Your task to perform on an android device: turn notification dots on Image 0: 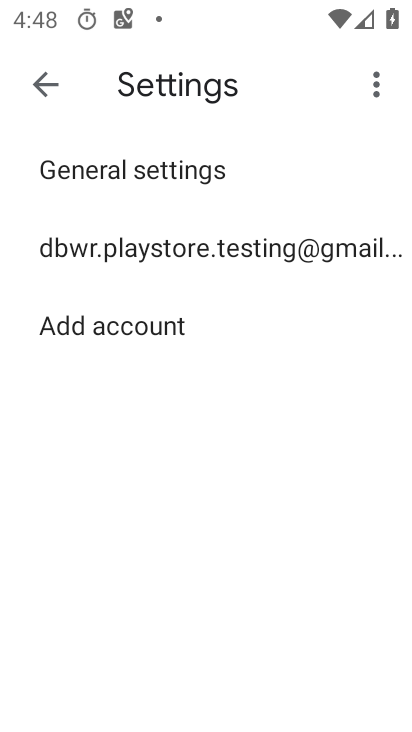
Step 0: press home button
Your task to perform on an android device: turn notification dots on Image 1: 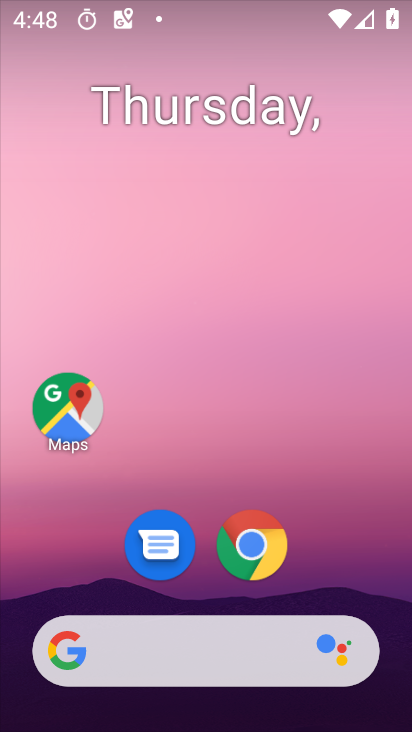
Step 1: drag from (232, 727) to (252, 0)
Your task to perform on an android device: turn notification dots on Image 2: 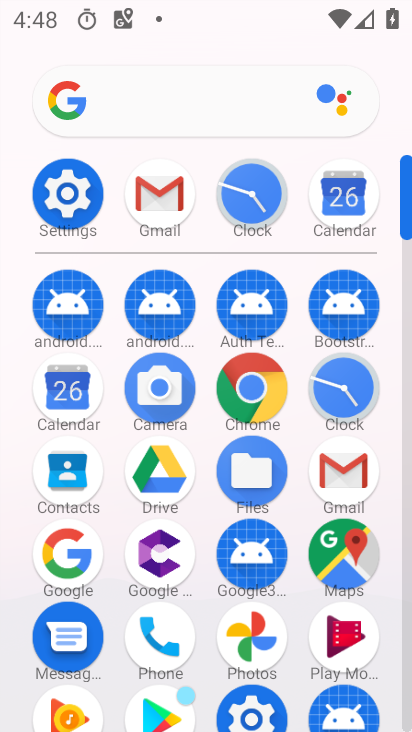
Step 2: click (73, 213)
Your task to perform on an android device: turn notification dots on Image 3: 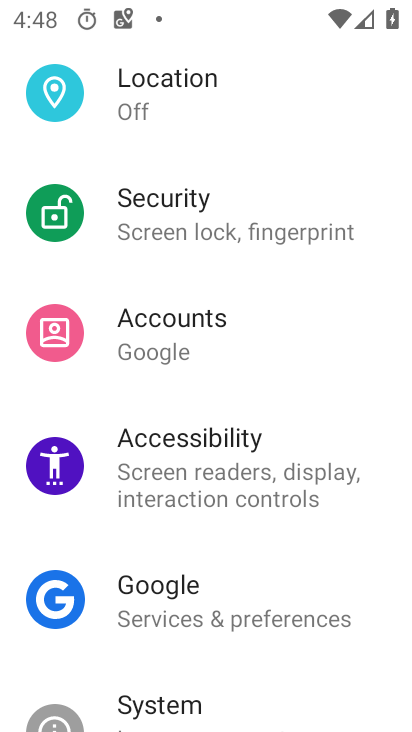
Step 3: drag from (209, 160) to (196, 628)
Your task to perform on an android device: turn notification dots on Image 4: 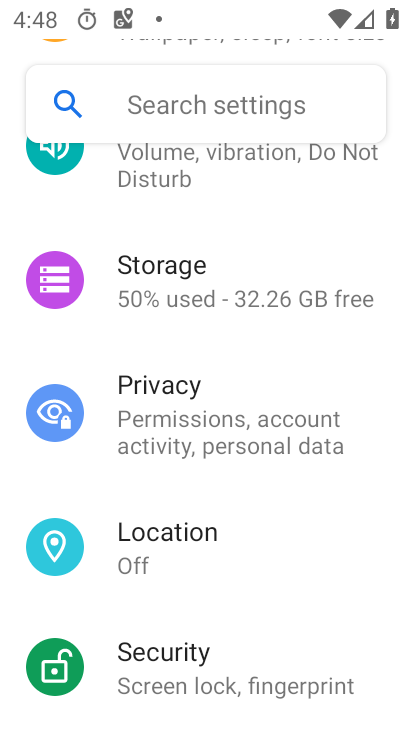
Step 4: drag from (209, 218) to (204, 637)
Your task to perform on an android device: turn notification dots on Image 5: 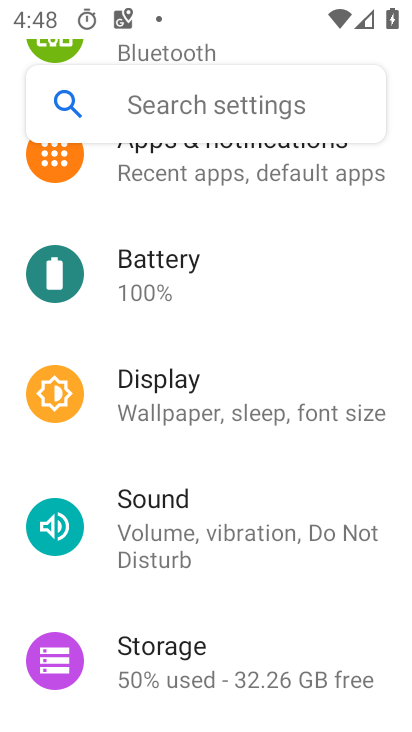
Step 5: drag from (218, 225) to (219, 617)
Your task to perform on an android device: turn notification dots on Image 6: 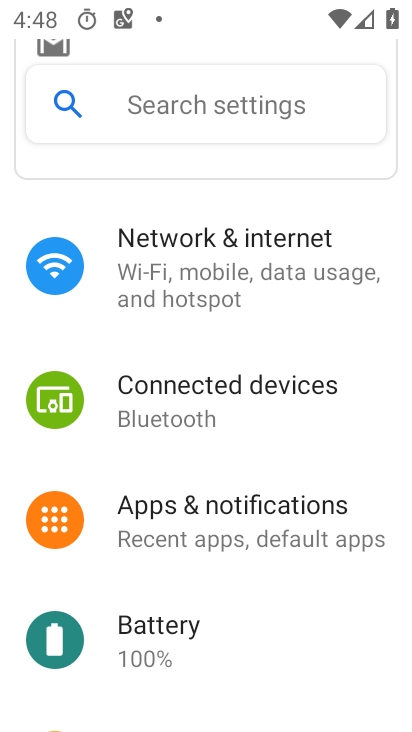
Step 6: click (207, 531)
Your task to perform on an android device: turn notification dots on Image 7: 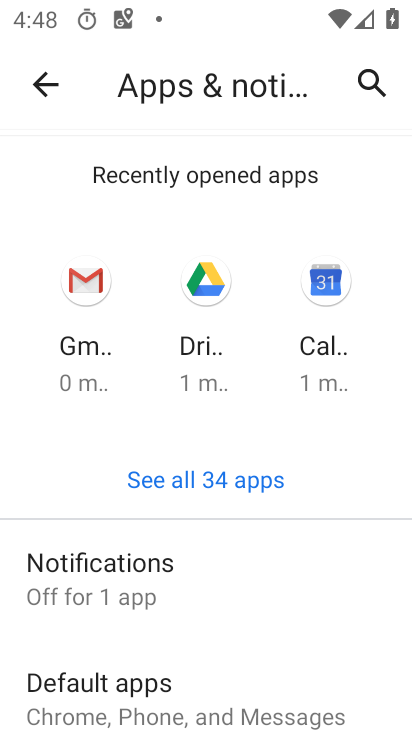
Step 7: click (124, 574)
Your task to perform on an android device: turn notification dots on Image 8: 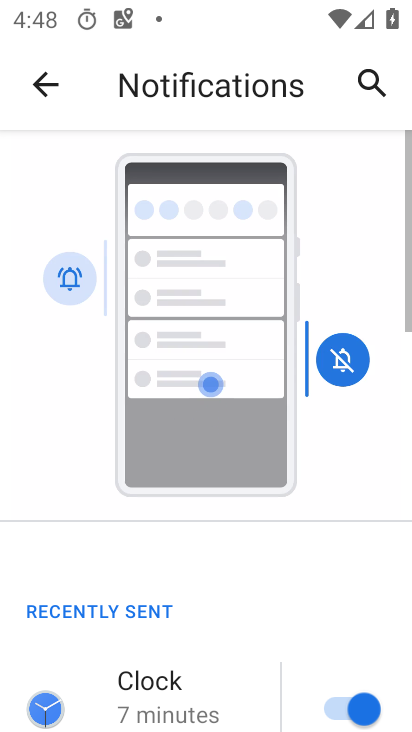
Step 8: drag from (208, 656) to (202, 197)
Your task to perform on an android device: turn notification dots on Image 9: 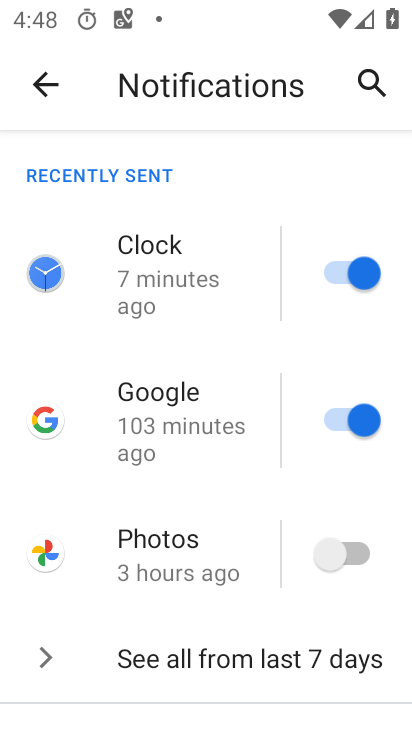
Step 9: drag from (191, 686) to (193, 223)
Your task to perform on an android device: turn notification dots on Image 10: 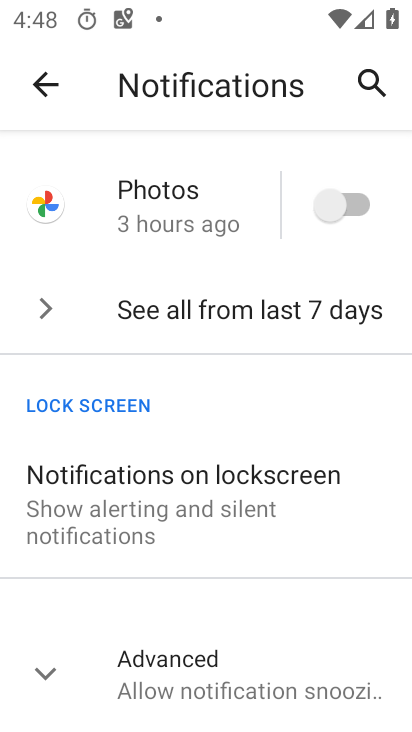
Step 10: click (192, 674)
Your task to perform on an android device: turn notification dots on Image 11: 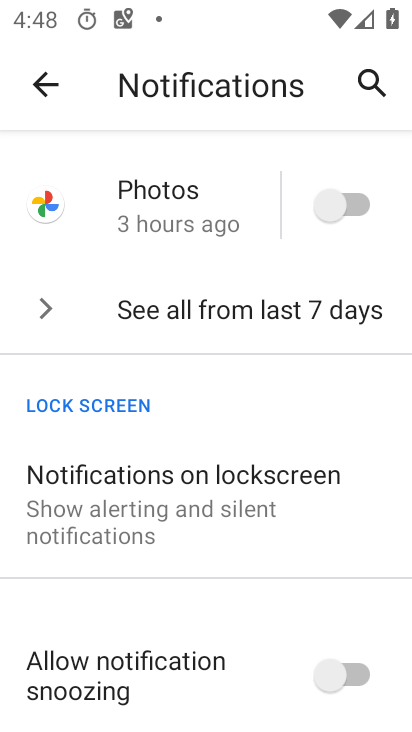
Step 11: task complete